Your task to perform on an android device: check android version Image 0: 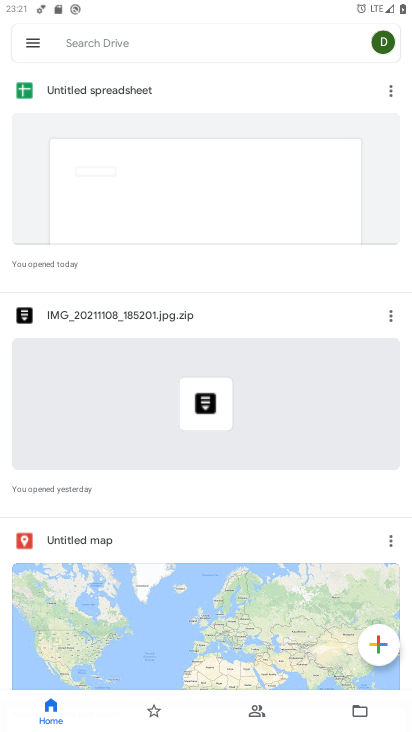
Step 0: press home button
Your task to perform on an android device: check android version Image 1: 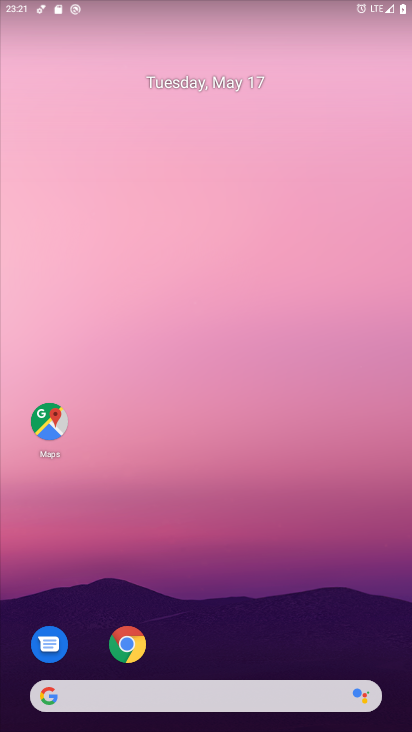
Step 1: drag from (208, 660) to (188, 118)
Your task to perform on an android device: check android version Image 2: 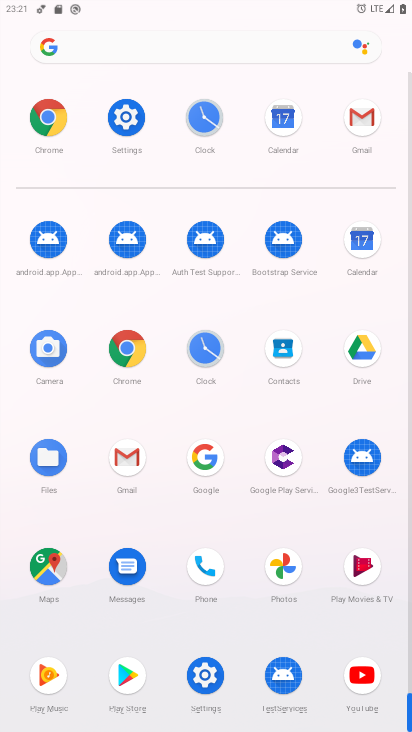
Step 2: click (125, 117)
Your task to perform on an android device: check android version Image 3: 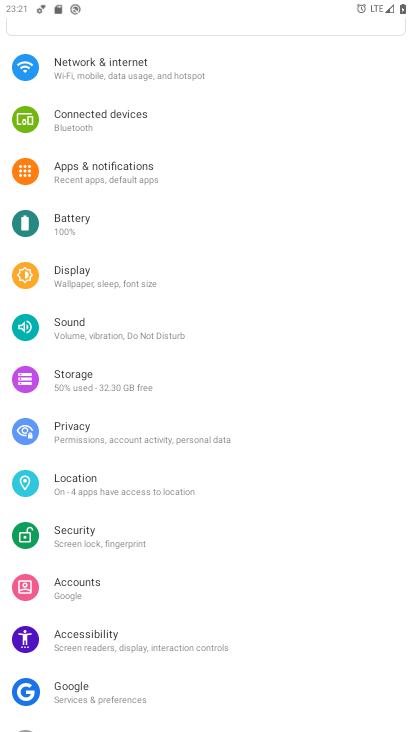
Step 3: drag from (130, 682) to (159, 207)
Your task to perform on an android device: check android version Image 4: 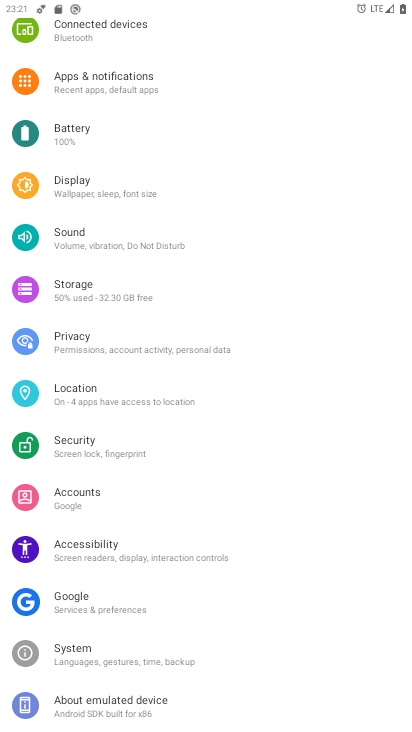
Step 4: click (121, 701)
Your task to perform on an android device: check android version Image 5: 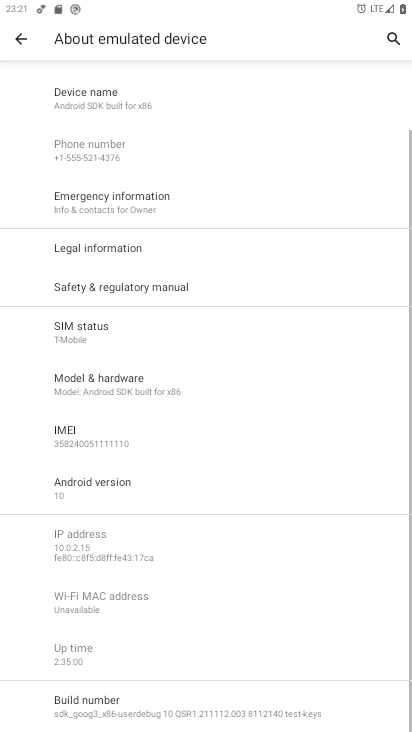
Step 5: click (130, 496)
Your task to perform on an android device: check android version Image 6: 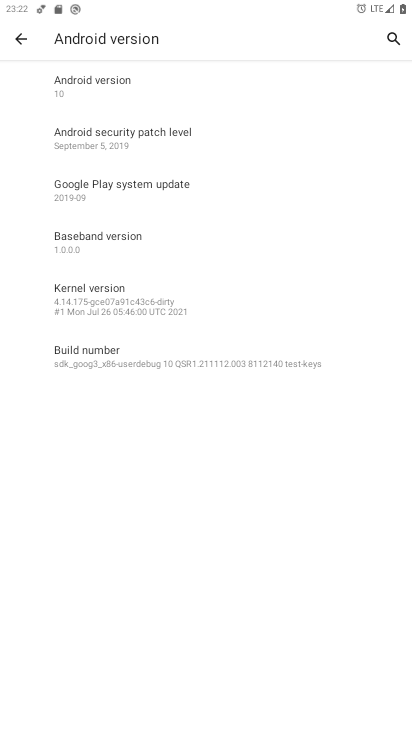
Step 6: task complete